Your task to perform on an android device: choose inbox layout in the gmail app Image 0: 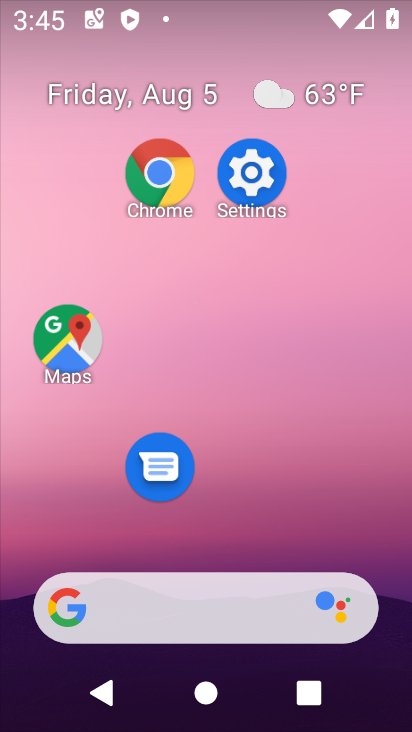
Step 0: drag from (226, 6) to (276, 541)
Your task to perform on an android device: choose inbox layout in the gmail app Image 1: 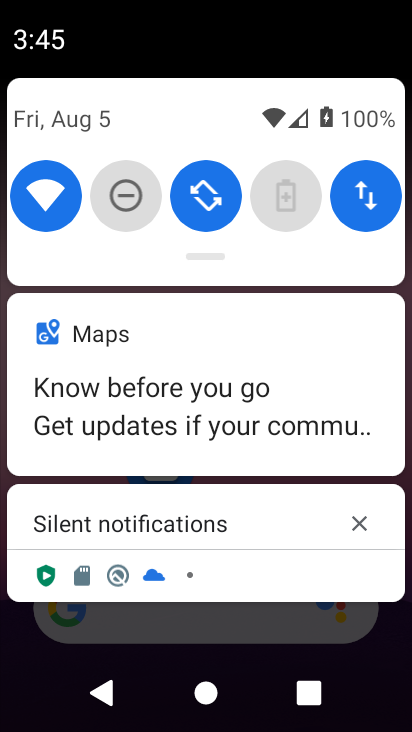
Step 1: click (380, 631)
Your task to perform on an android device: choose inbox layout in the gmail app Image 2: 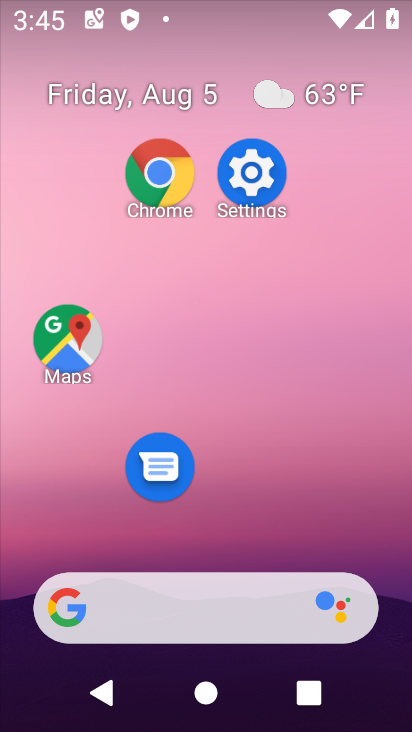
Step 2: drag from (297, 487) to (311, 40)
Your task to perform on an android device: choose inbox layout in the gmail app Image 3: 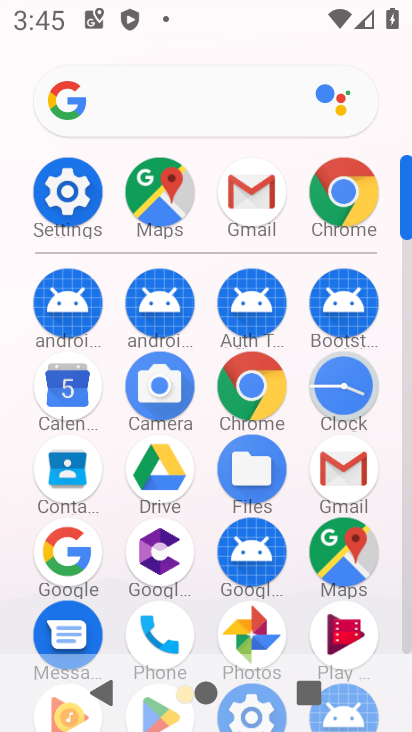
Step 3: click (337, 469)
Your task to perform on an android device: choose inbox layout in the gmail app Image 4: 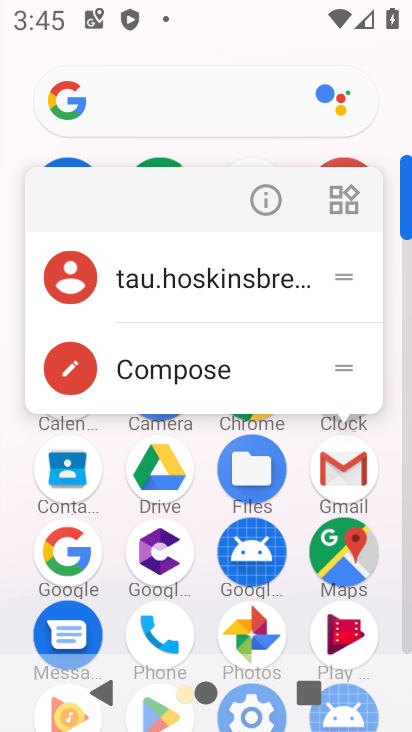
Step 4: click (337, 469)
Your task to perform on an android device: choose inbox layout in the gmail app Image 5: 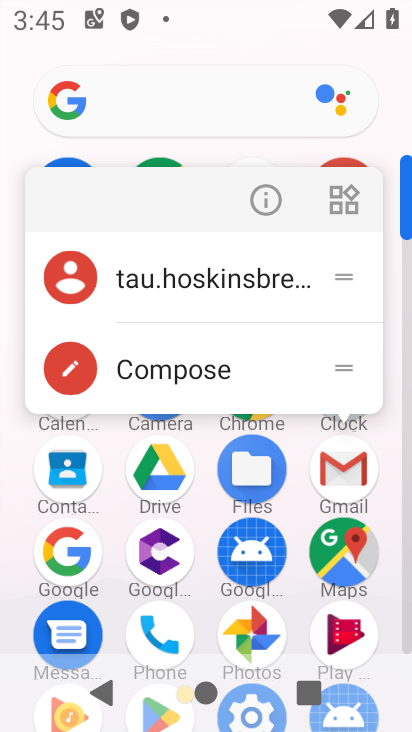
Step 5: click (337, 469)
Your task to perform on an android device: choose inbox layout in the gmail app Image 6: 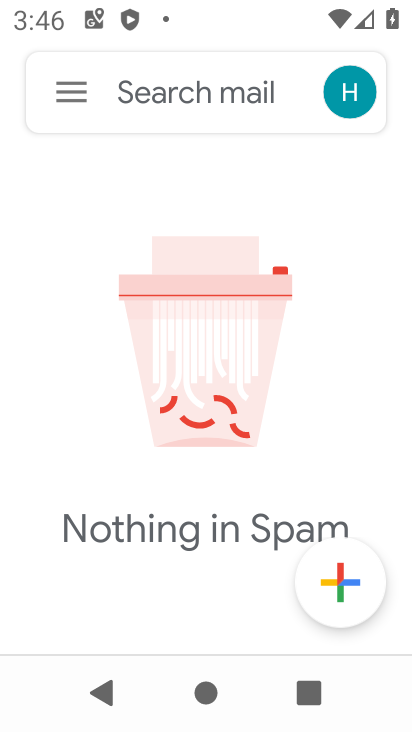
Step 6: click (77, 89)
Your task to perform on an android device: choose inbox layout in the gmail app Image 7: 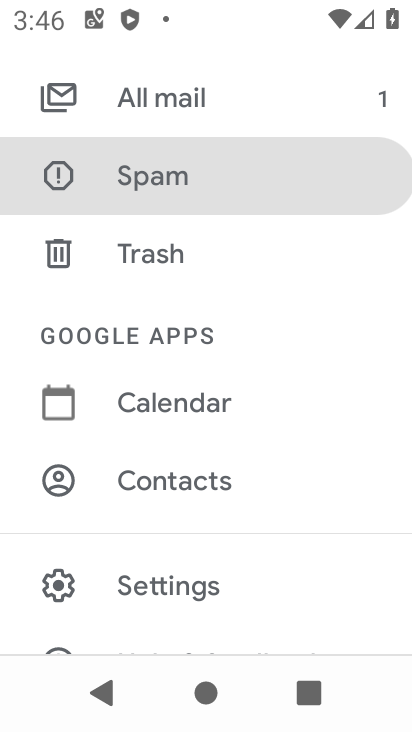
Step 7: drag from (202, 116) to (231, 614)
Your task to perform on an android device: choose inbox layout in the gmail app Image 8: 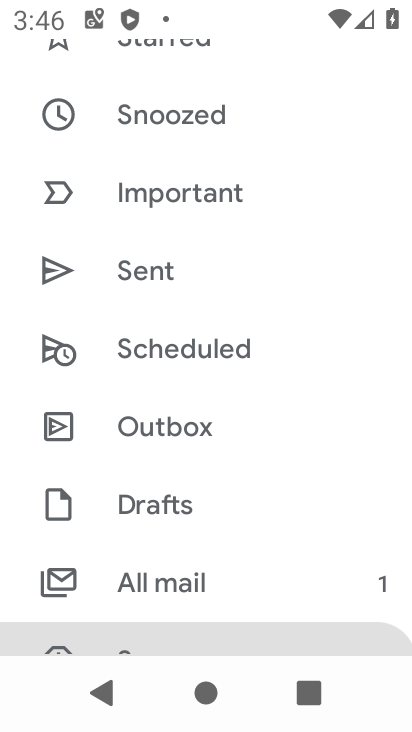
Step 8: drag from (222, 119) to (214, 549)
Your task to perform on an android device: choose inbox layout in the gmail app Image 9: 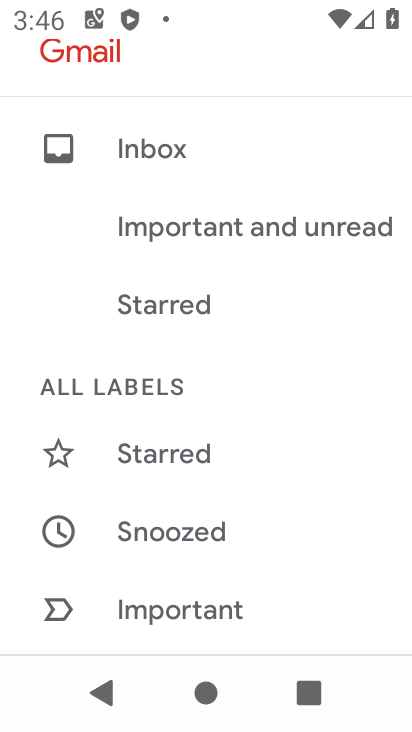
Step 9: drag from (245, 577) to (220, 142)
Your task to perform on an android device: choose inbox layout in the gmail app Image 10: 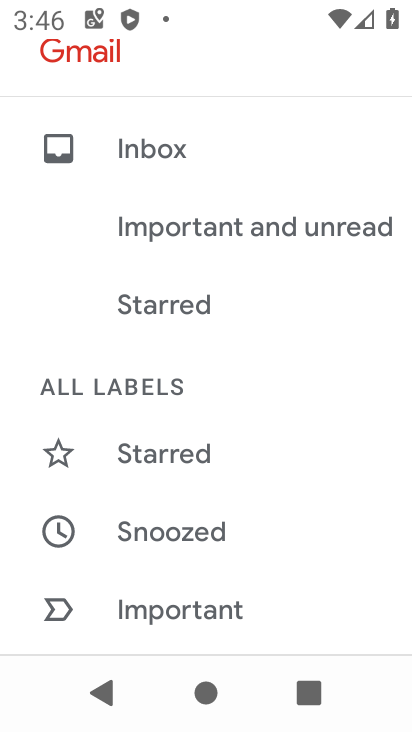
Step 10: drag from (271, 576) to (250, 166)
Your task to perform on an android device: choose inbox layout in the gmail app Image 11: 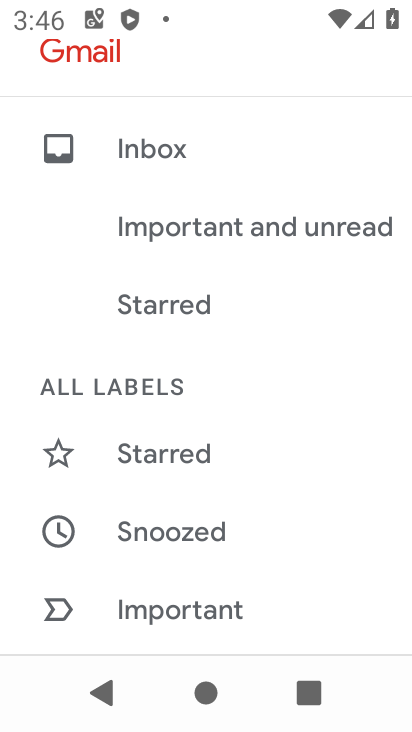
Step 11: drag from (236, 569) to (238, 136)
Your task to perform on an android device: choose inbox layout in the gmail app Image 12: 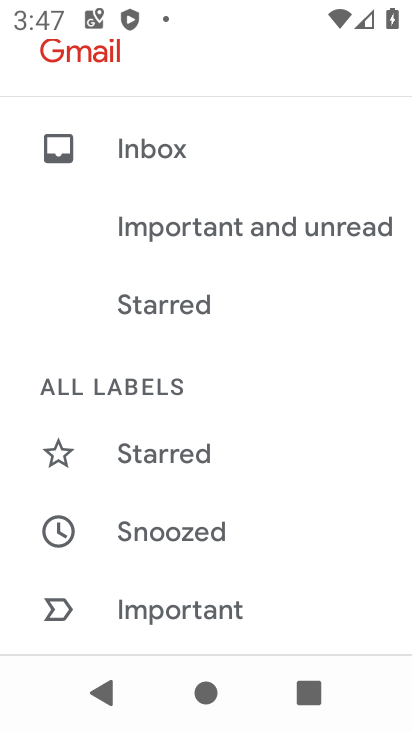
Step 12: drag from (185, 589) to (169, 115)
Your task to perform on an android device: choose inbox layout in the gmail app Image 13: 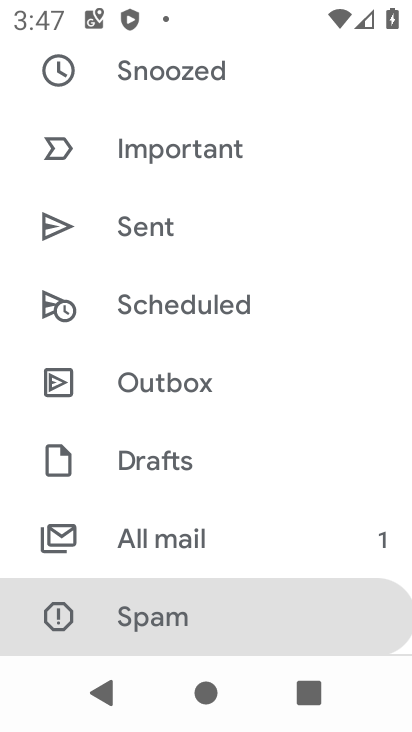
Step 13: drag from (179, 576) to (181, 143)
Your task to perform on an android device: choose inbox layout in the gmail app Image 14: 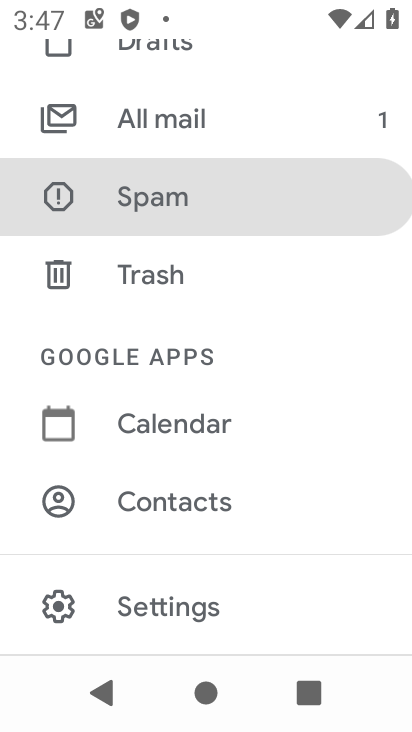
Step 14: click (157, 604)
Your task to perform on an android device: choose inbox layout in the gmail app Image 15: 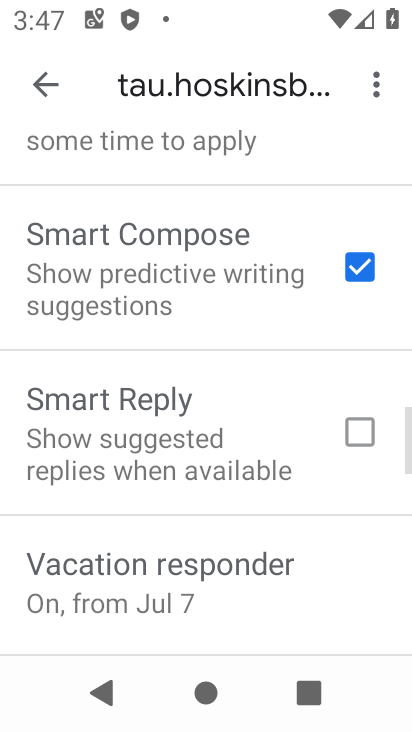
Step 15: drag from (155, 511) to (176, 124)
Your task to perform on an android device: choose inbox layout in the gmail app Image 16: 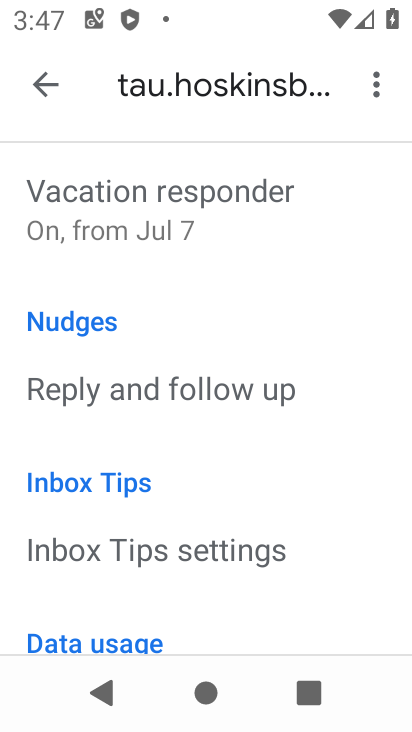
Step 16: drag from (151, 185) to (194, 697)
Your task to perform on an android device: choose inbox layout in the gmail app Image 17: 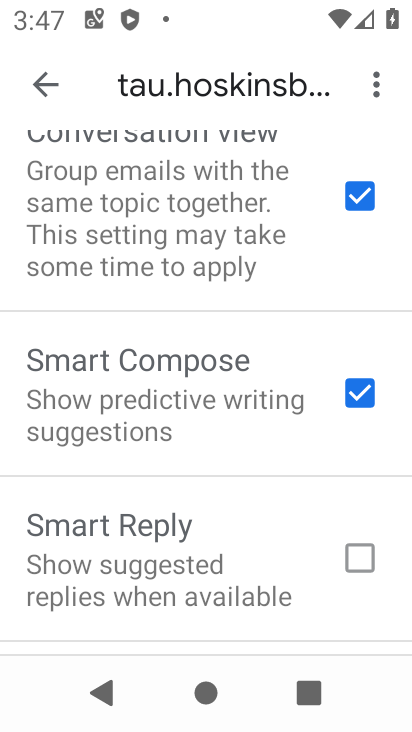
Step 17: drag from (150, 208) to (147, 631)
Your task to perform on an android device: choose inbox layout in the gmail app Image 18: 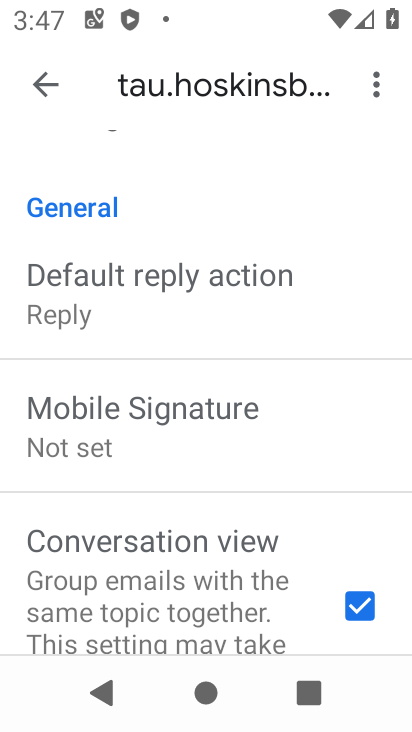
Step 18: drag from (141, 253) to (134, 626)
Your task to perform on an android device: choose inbox layout in the gmail app Image 19: 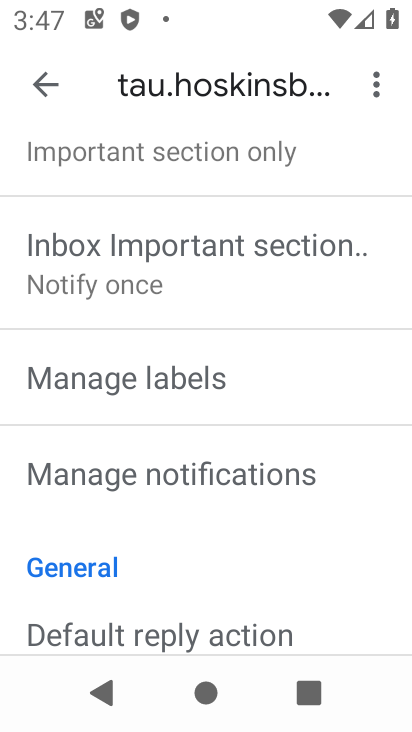
Step 19: drag from (138, 237) to (118, 658)
Your task to perform on an android device: choose inbox layout in the gmail app Image 20: 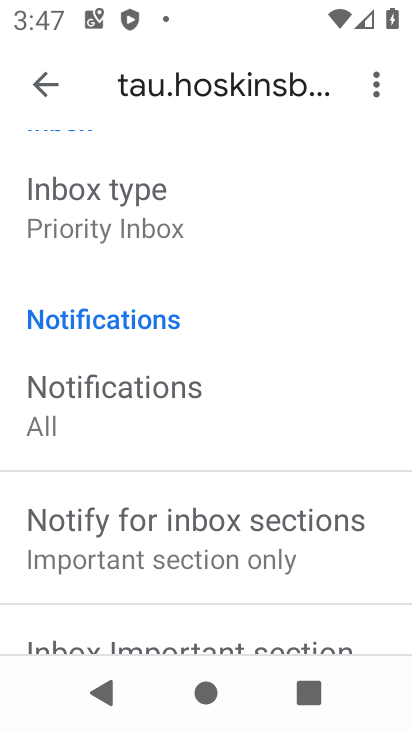
Step 20: drag from (135, 193) to (118, 599)
Your task to perform on an android device: choose inbox layout in the gmail app Image 21: 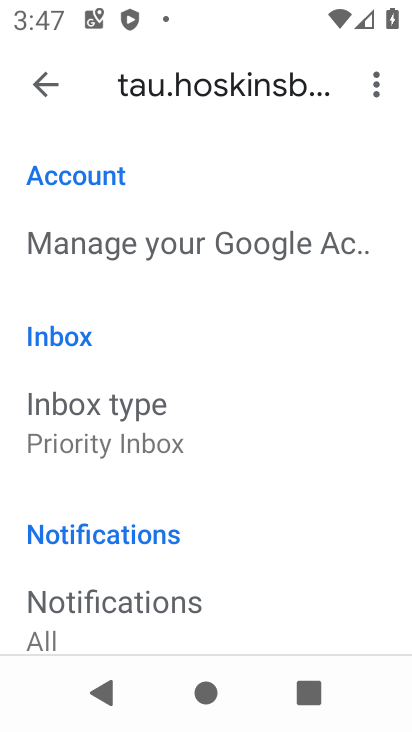
Step 21: click (87, 446)
Your task to perform on an android device: choose inbox layout in the gmail app Image 22: 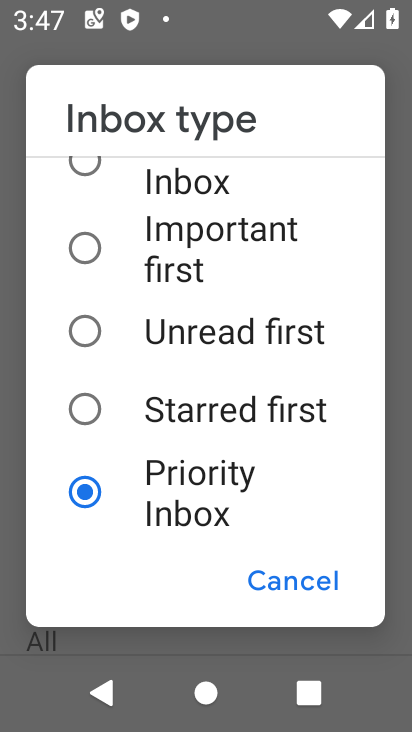
Step 22: click (162, 179)
Your task to perform on an android device: choose inbox layout in the gmail app Image 23: 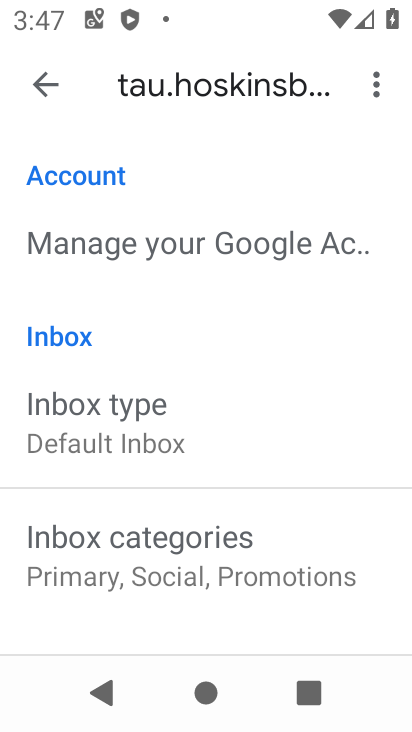
Step 23: task complete